Your task to perform on an android device: Open privacy settings Image 0: 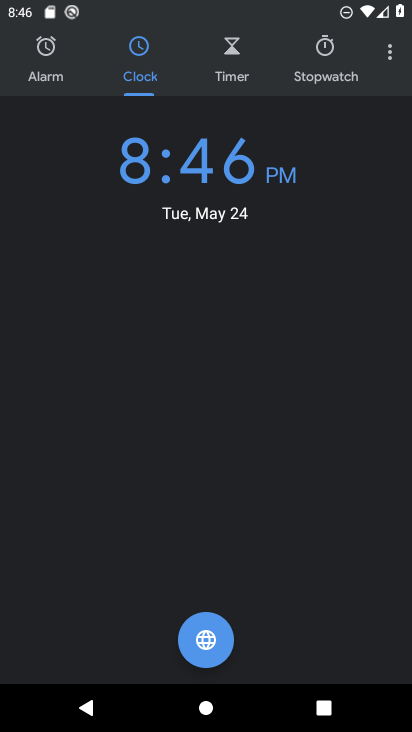
Step 0: press home button
Your task to perform on an android device: Open privacy settings Image 1: 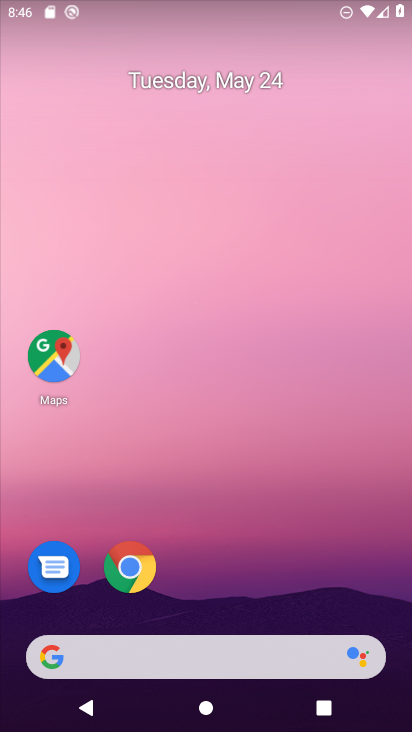
Step 1: drag from (156, 655) to (320, 178)
Your task to perform on an android device: Open privacy settings Image 2: 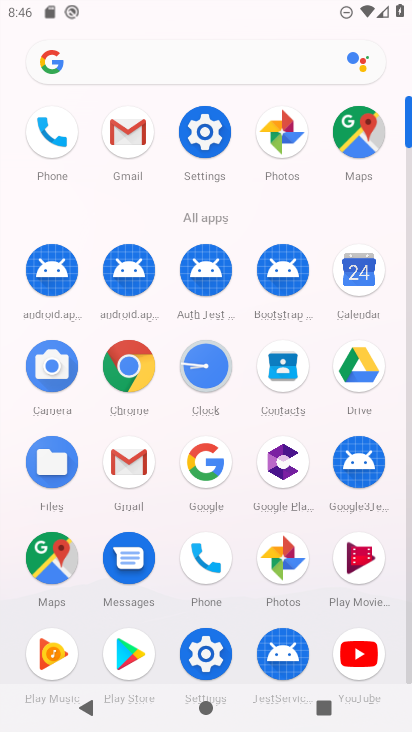
Step 2: click (204, 140)
Your task to perform on an android device: Open privacy settings Image 3: 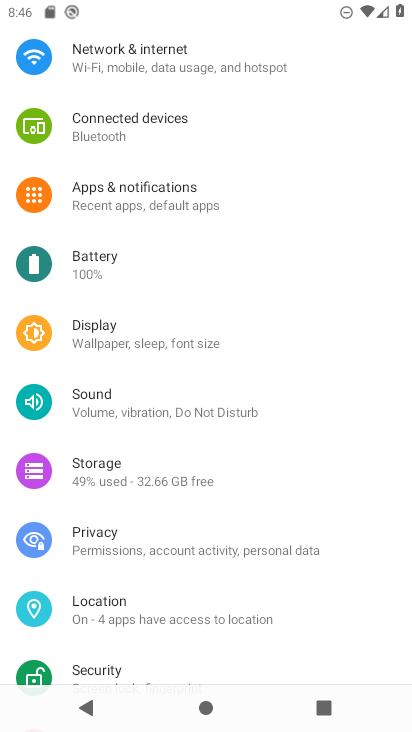
Step 3: click (113, 539)
Your task to perform on an android device: Open privacy settings Image 4: 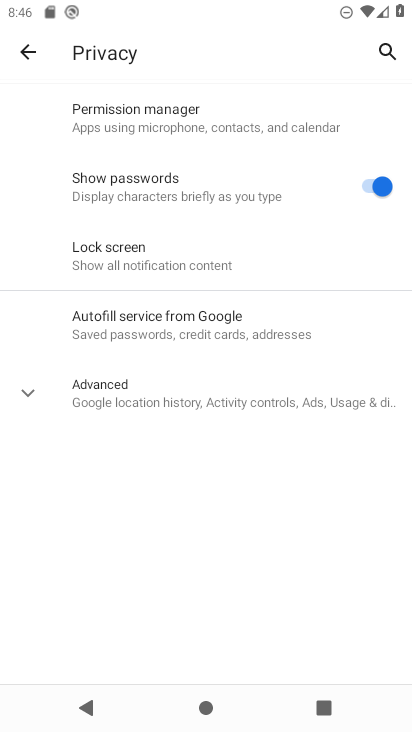
Step 4: task complete